Your task to perform on an android device: open device folders in google photos Image 0: 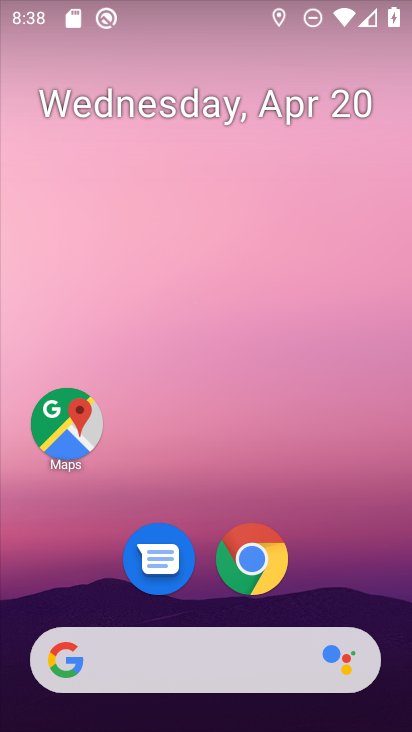
Step 0: drag from (386, 622) to (338, 135)
Your task to perform on an android device: open device folders in google photos Image 1: 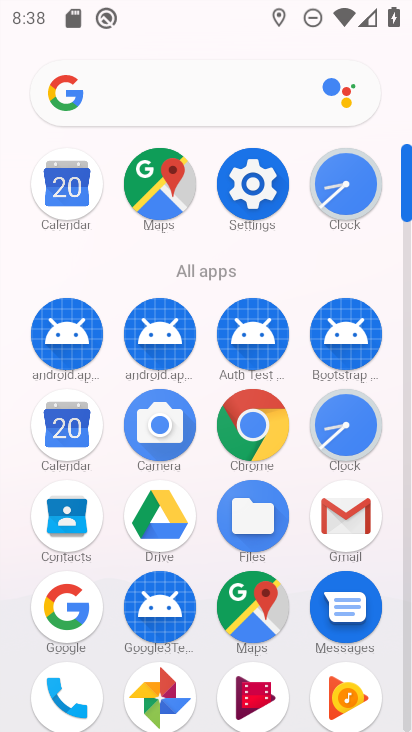
Step 1: click (407, 708)
Your task to perform on an android device: open device folders in google photos Image 2: 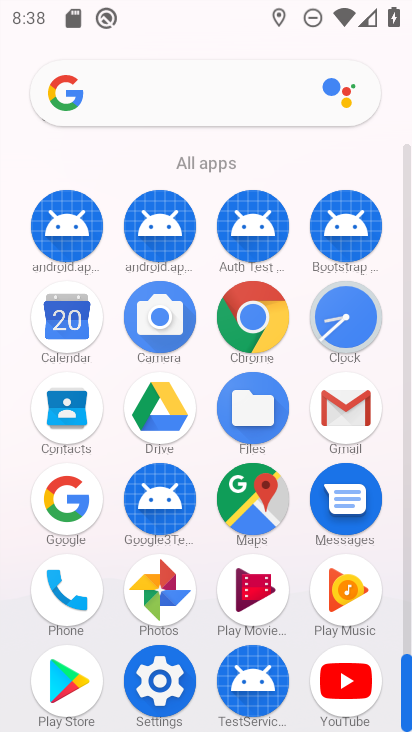
Step 2: click (160, 592)
Your task to perform on an android device: open device folders in google photos Image 3: 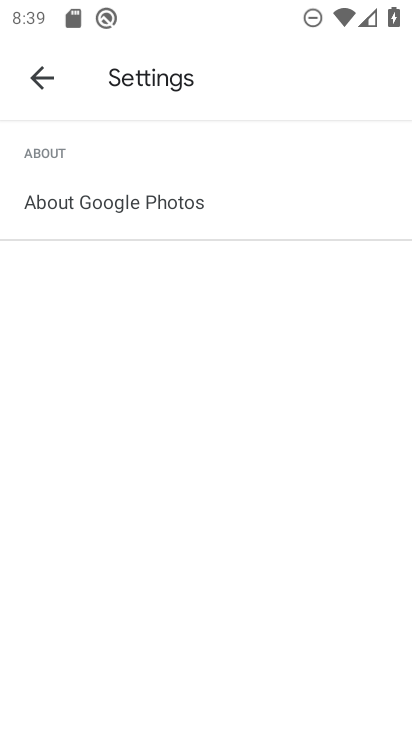
Step 3: press back button
Your task to perform on an android device: open device folders in google photos Image 4: 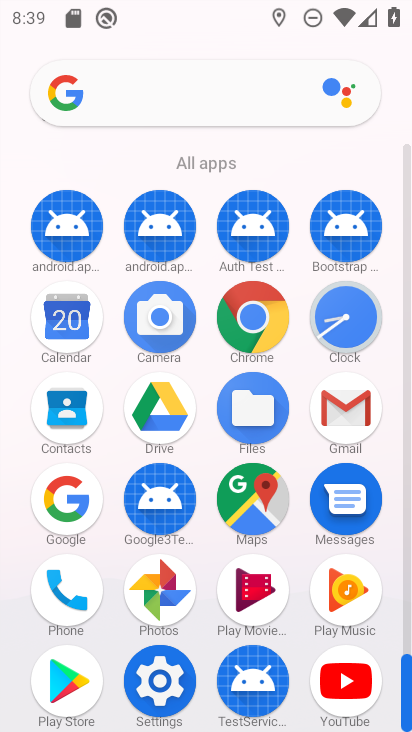
Step 4: click (159, 583)
Your task to perform on an android device: open device folders in google photos Image 5: 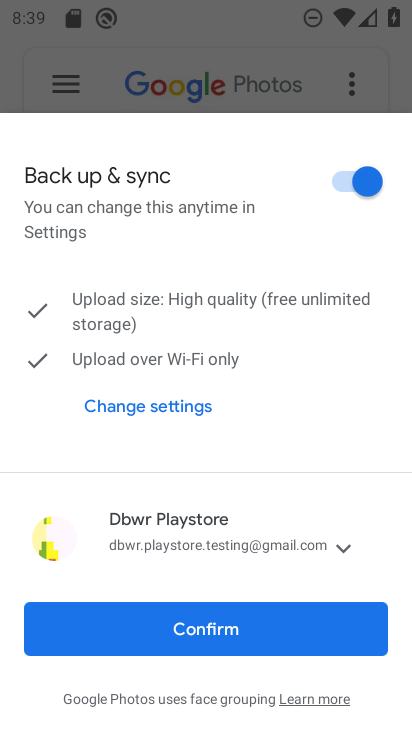
Step 5: click (166, 614)
Your task to perform on an android device: open device folders in google photos Image 6: 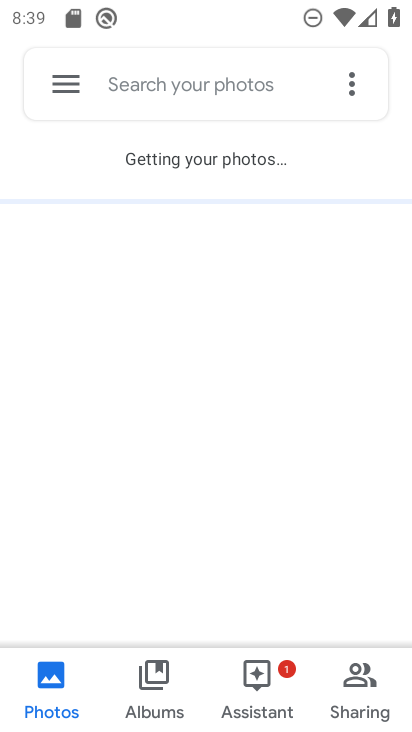
Step 6: click (67, 81)
Your task to perform on an android device: open device folders in google photos Image 7: 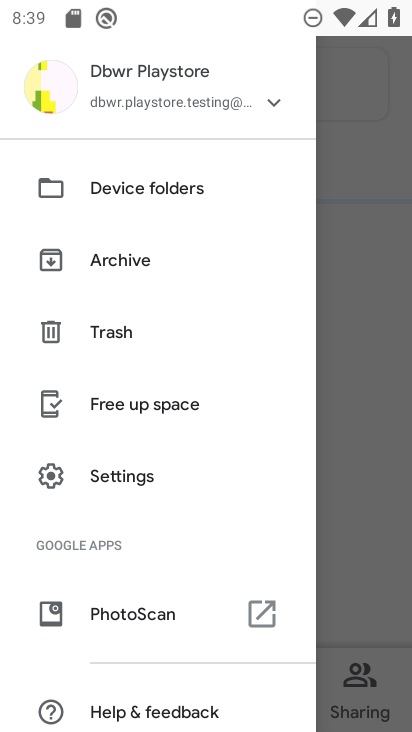
Step 7: click (112, 178)
Your task to perform on an android device: open device folders in google photos Image 8: 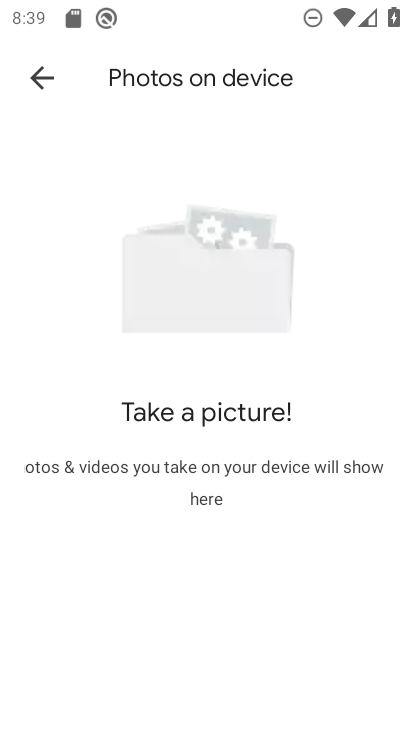
Step 8: task complete